Your task to perform on an android device: change the upload size in google photos Image 0: 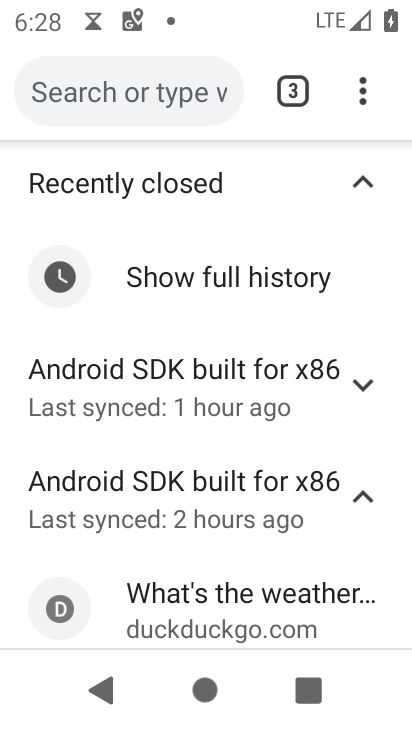
Step 0: press home button
Your task to perform on an android device: change the upload size in google photos Image 1: 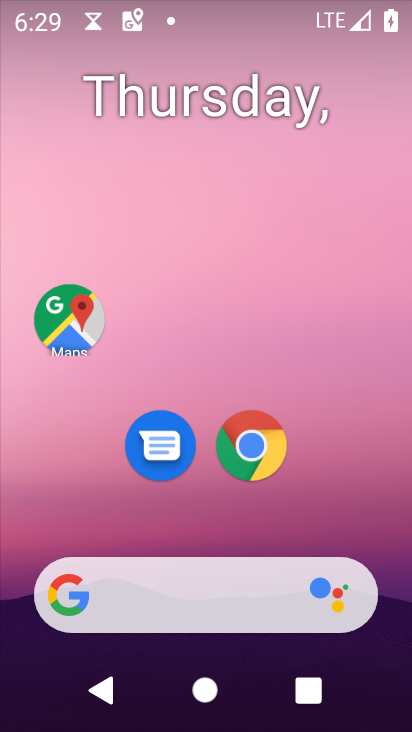
Step 1: drag from (304, 498) to (355, 86)
Your task to perform on an android device: change the upload size in google photos Image 2: 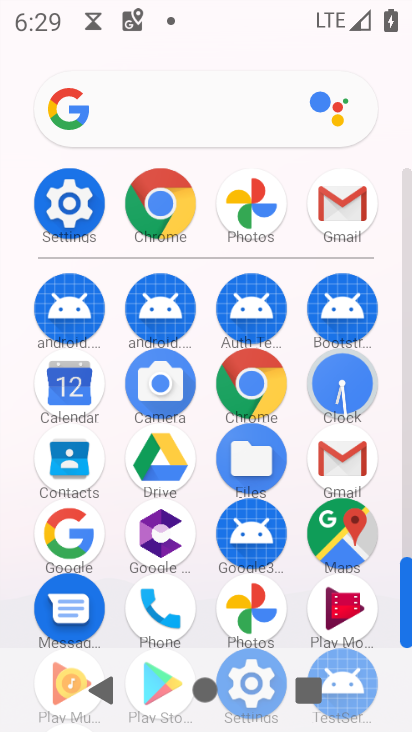
Step 2: click (250, 208)
Your task to perform on an android device: change the upload size in google photos Image 3: 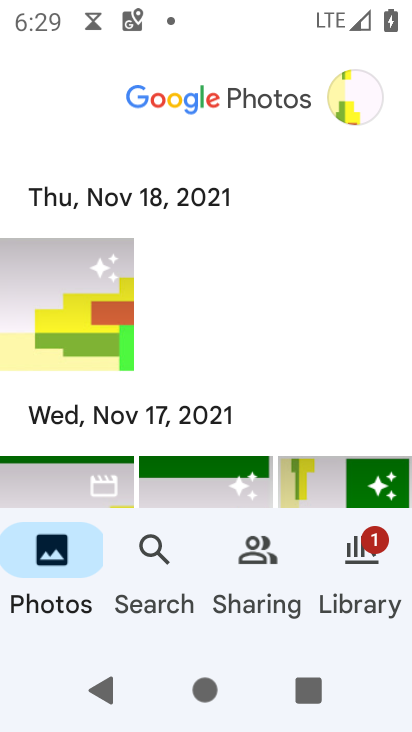
Step 3: click (146, 544)
Your task to perform on an android device: change the upload size in google photos Image 4: 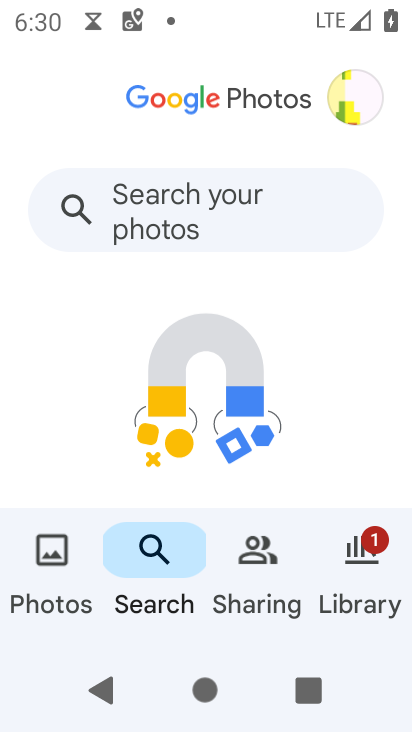
Step 4: click (365, 99)
Your task to perform on an android device: change the upload size in google photos Image 5: 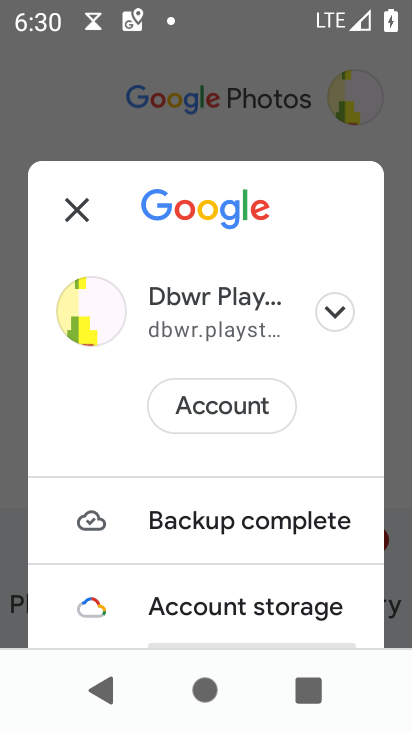
Step 5: click (273, 526)
Your task to perform on an android device: change the upload size in google photos Image 6: 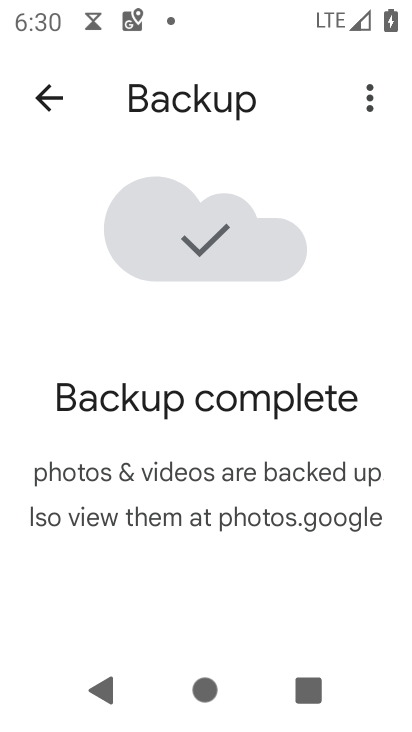
Step 6: task complete